Your task to perform on an android device: Open my contact list Image 0: 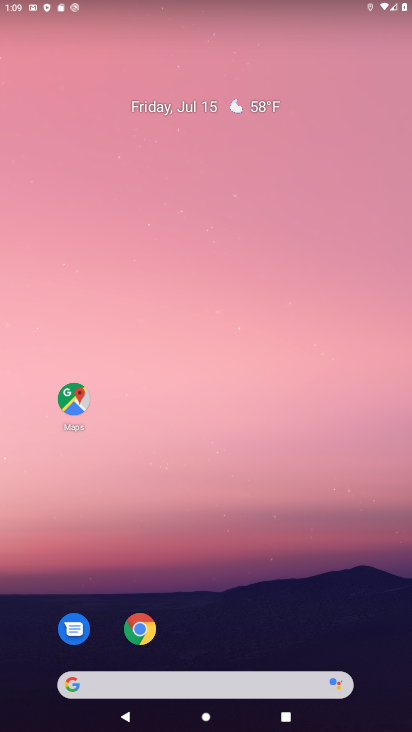
Step 0: drag from (247, 615) to (286, 203)
Your task to perform on an android device: Open my contact list Image 1: 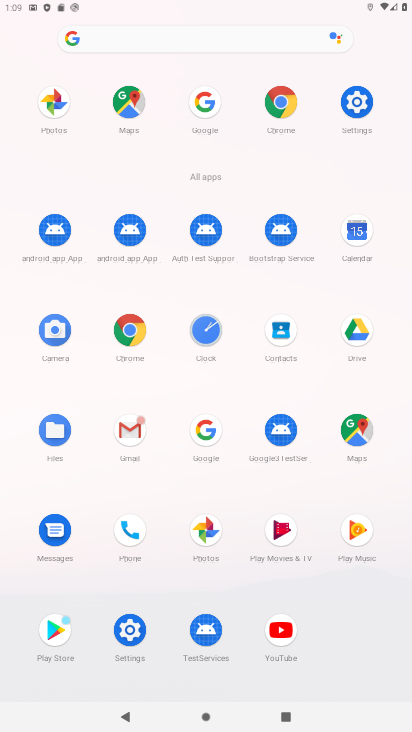
Step 1: click (292, 336)
Your task to perform on an android device: Open my contact list Image 2: 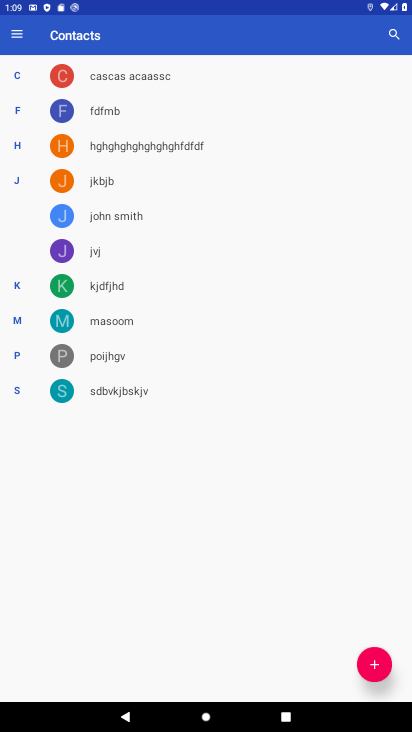
Step 2: task complete